Your task to perform on an android device: Go to Wikipedia Image 0: 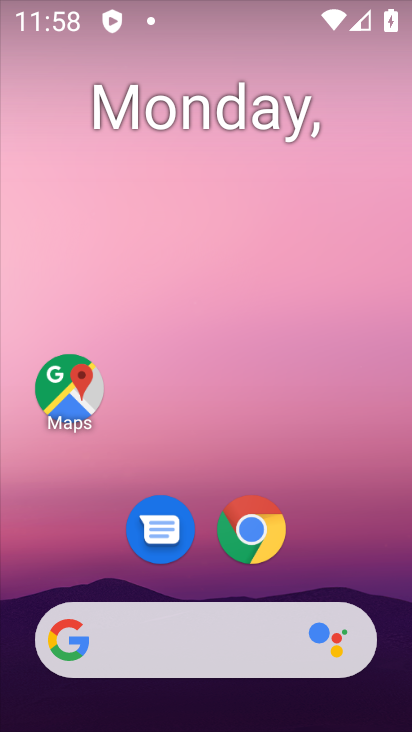
Step 0: click (249, 539)
Your task to perform on an android device: Go to Wikipedia Image 1: 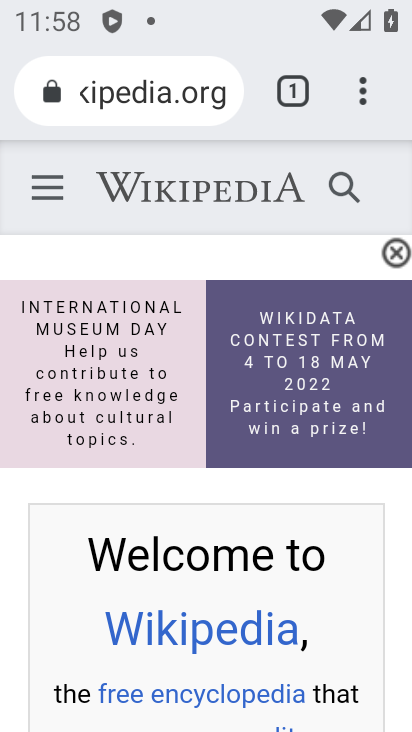
Step 1: task complete